Your task to perform on an android device: star an email in the gmail app Image 0: 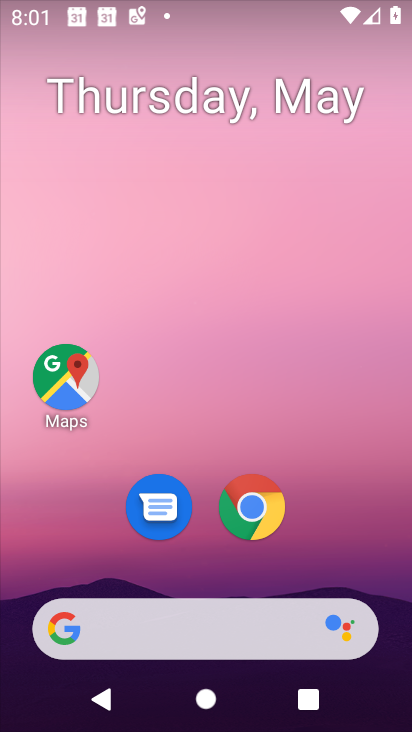
Step 0: drag from (263, 646) to (228, 258)
Your task to perform on an android device: star an email in the gmail app Image 1: 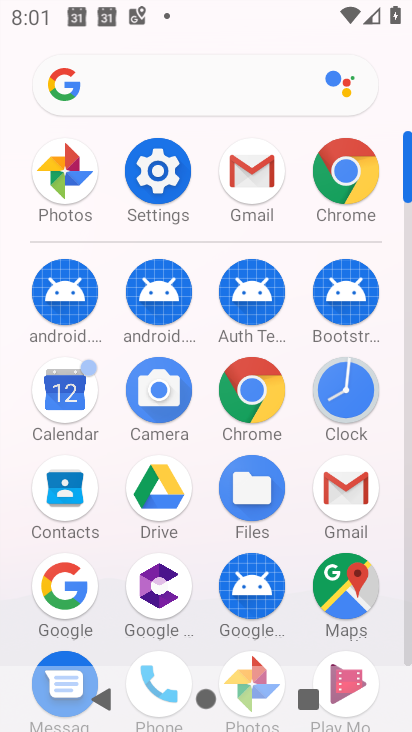
Step 1: click (338, 479)
Your task to perform on an android device: star an email in the gmail app Image 2: 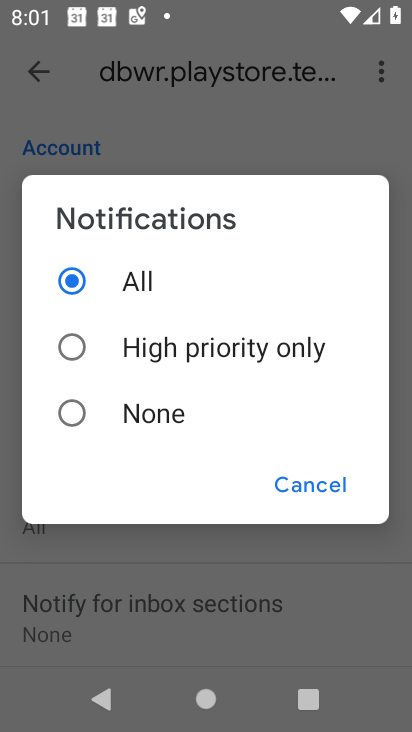
Step 2: click (331, 498)
Your task to perform on an android device: star an email in the gmail app Image 3: 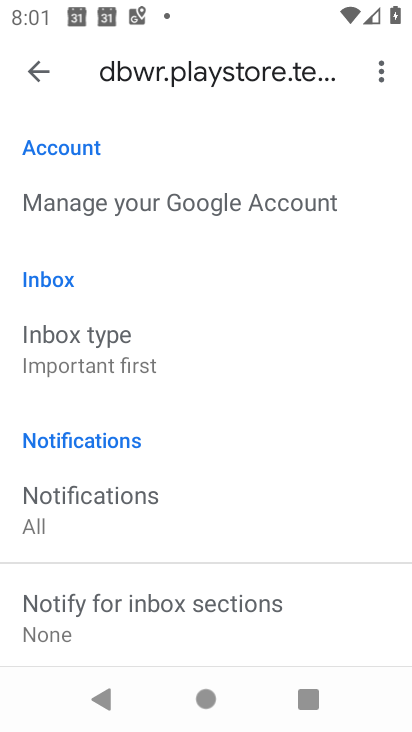
Step 3: click (49, 83)
Your task to perform on an android device: star an email in the gmail app Image 4: 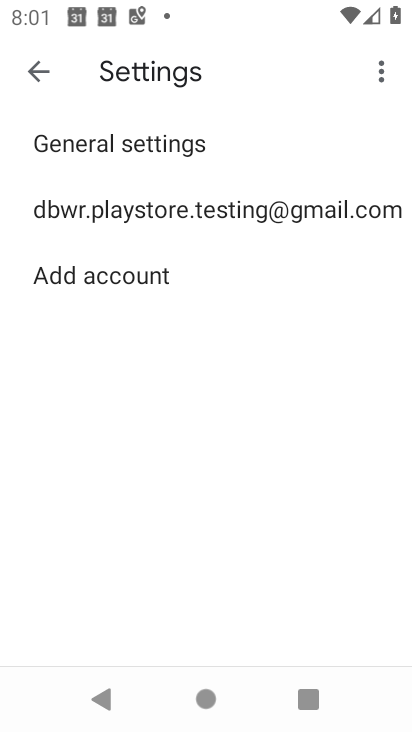
Step 4: click (49, 82)
Your task to perform on an android device: star an email in the gmail app Image 5: 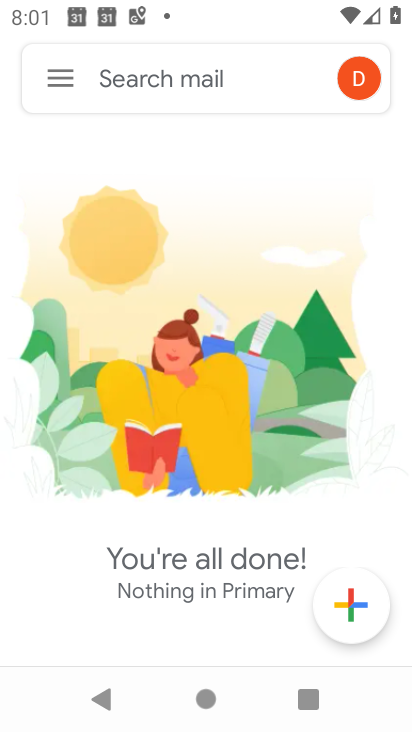
Step 5: click (49, 82)
Your task to perform on an android device: star an email in the gmail app Image 6: 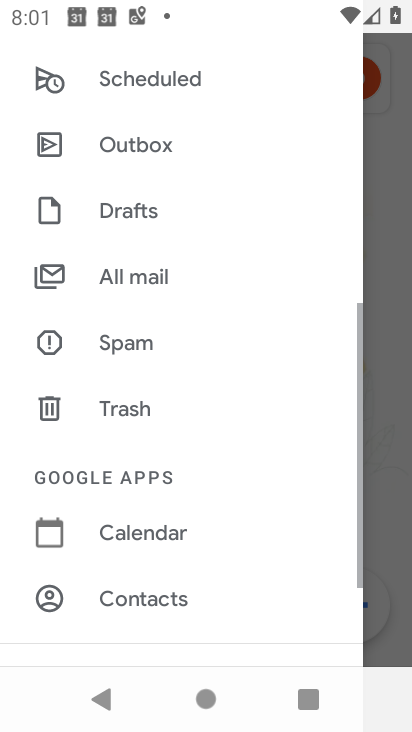
Step 6: drag from (144, 158) to (200, 383)
Your task to perform on an android device: star an email in the gmail app Image 7: 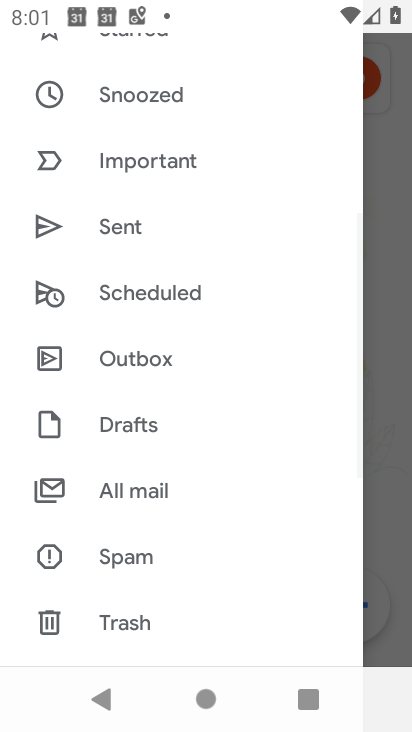
Step 7: drag from (125, 107) to (136, 180)
Your task to perform on an android device: star an email in the gmail app Image 8: 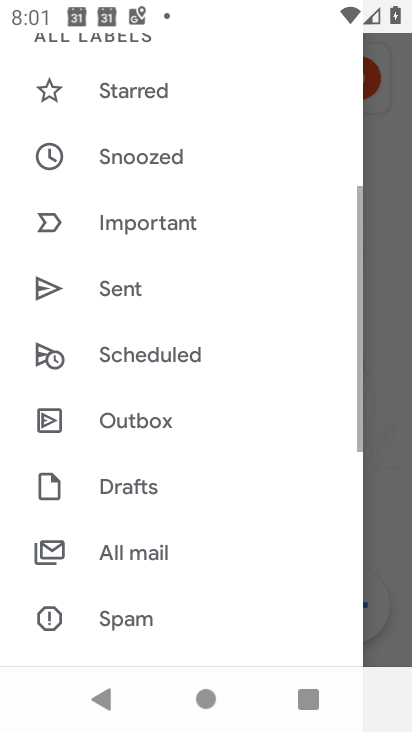
Step 8: click (119, 98)
Your task to perform on an android device: star an email in the gmail app Image 9: 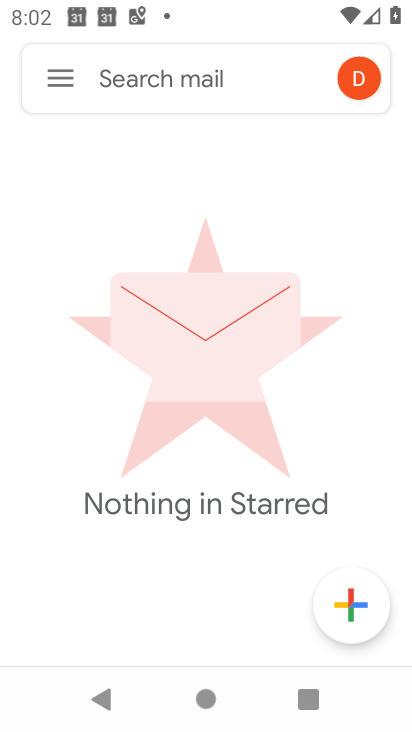
Step 9: task complete